Your task to perform on an android device: turn pop-ups off in chrome Image 0: 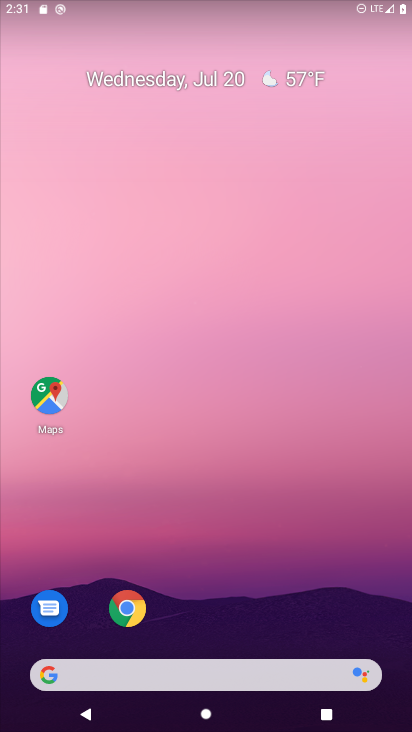
Step 0: click (128, 608)
Your task to perform on an android device: turn pop-ups off in chrome Image 1: 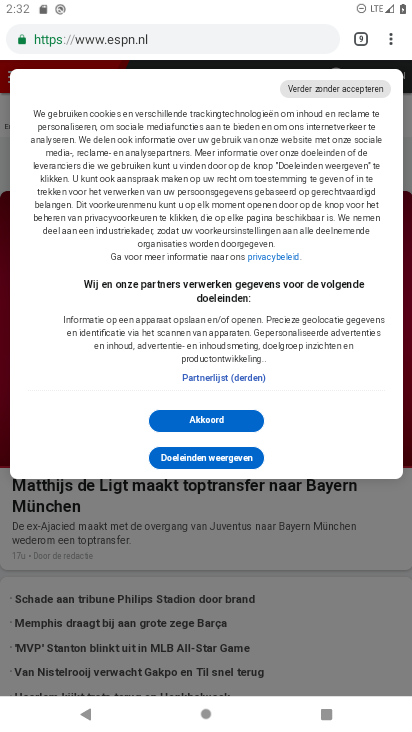
Step 1: click (391, 42)
Your task to perform on an android device: turn pop-ups off in chrome Image 2: 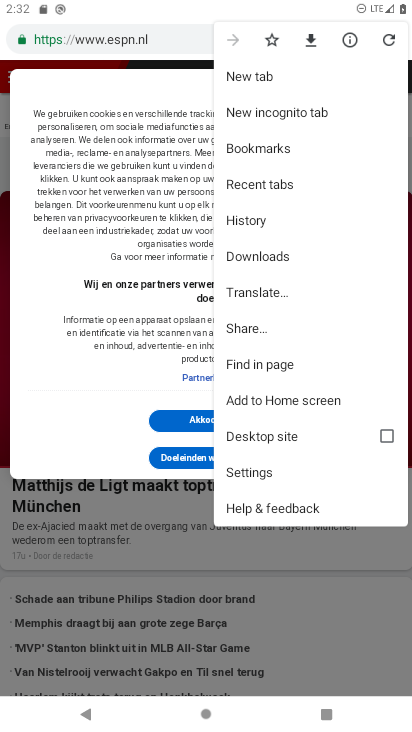
Step 2: click (252, 473)
Your task to perform on an android device: turn pop-ups off in chrome Image 3: 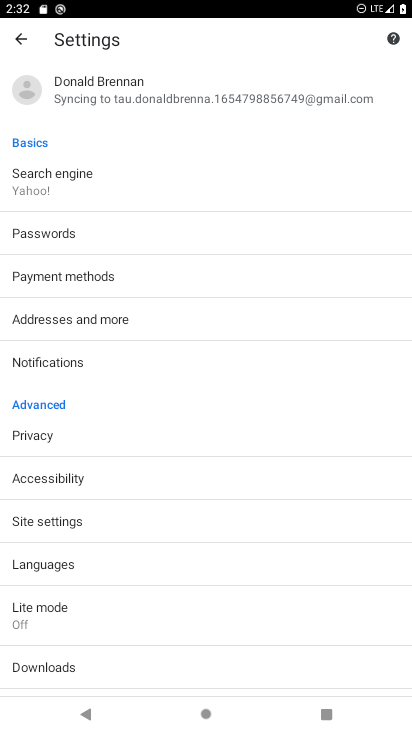
Step 3: click (44, 523)
Your task to perform on an android device: turn pop-ups off in chrome Image 4: 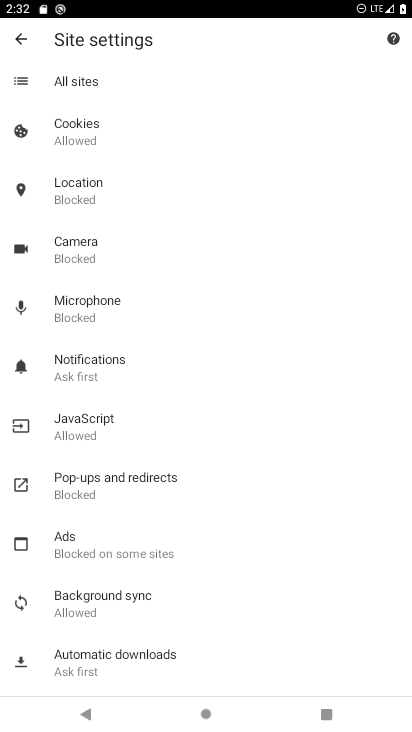
Step 4: click (89, 474)
Your task to perform on an android device: turn pop-ups off in chrome Image 5: 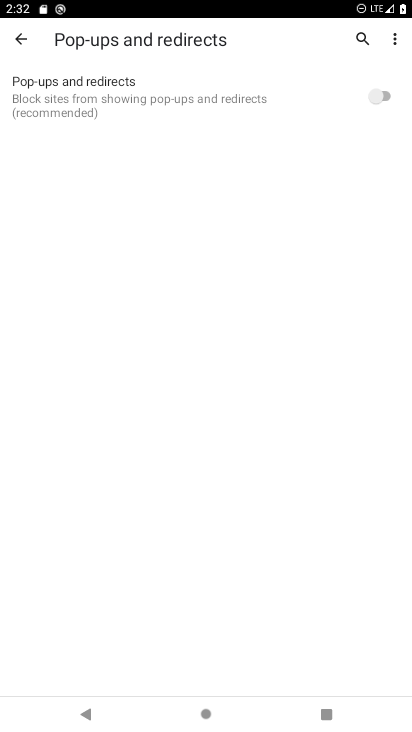
Step 5: task complete